Your task to perform on an android device: read, delete, or share a saved page in the chrome app Image 0: 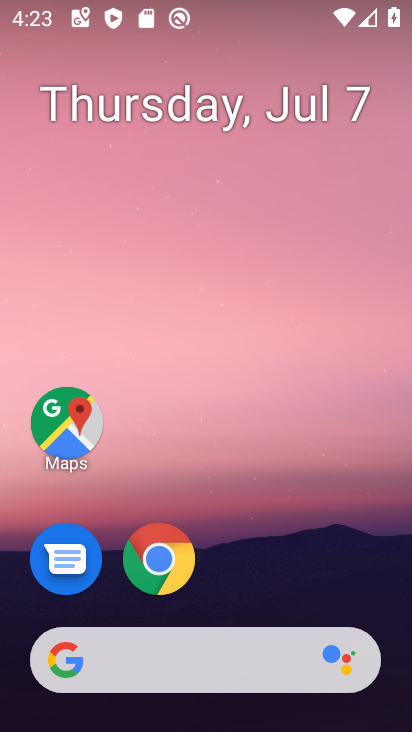
Step 0: drag from (245, 630) to (352, 47)
Your task to perform on an android device: read, delete, or share a saved page in the chrome app Image 1: 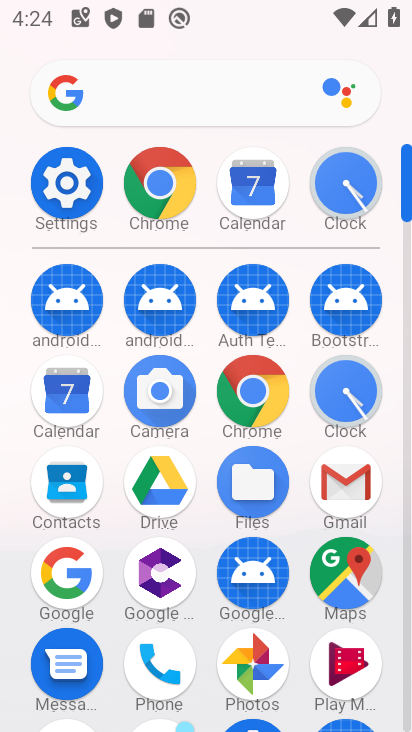
Step 1: click (182, 186)
Your task to perform on an android device: read, delete, or share a saved page in the chrome app Image 2: 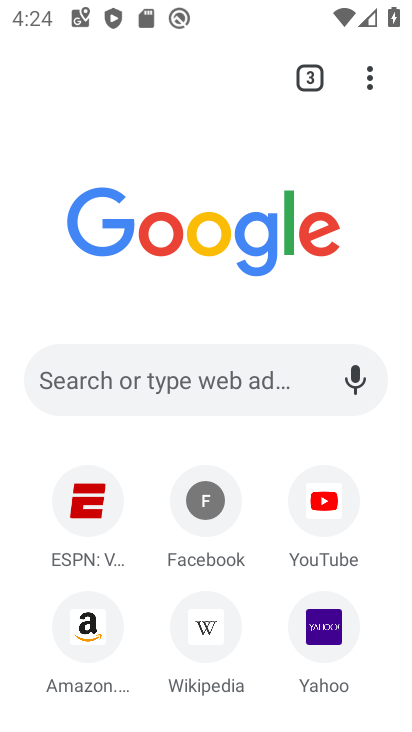
Step 2: task complete